Your task to perform on an android device: Open the stopwatch Image 0: 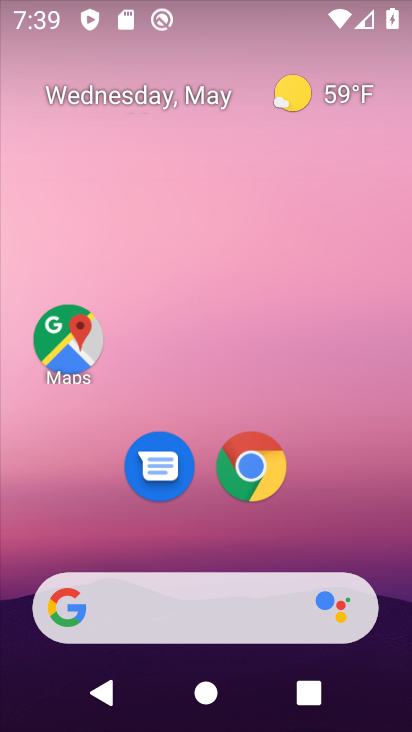
Step 0: drag from (312, 541) to (312, 226)
Your task to perform on an android device: Open the stopwatch Image 1: 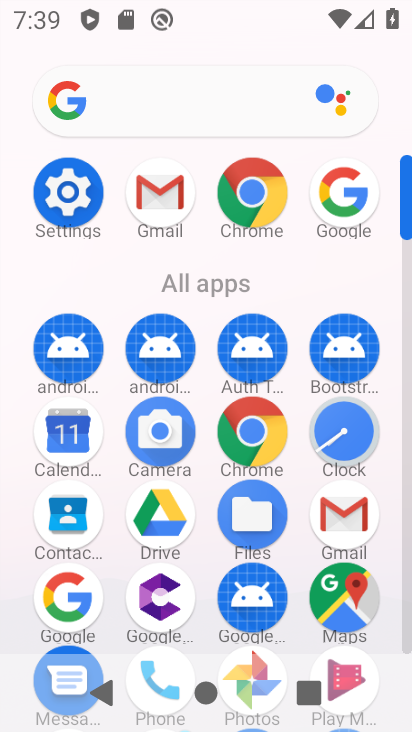
Step 1: click (319, 430)
Your task to perform on an android device: Open the stopwatch Image 2: 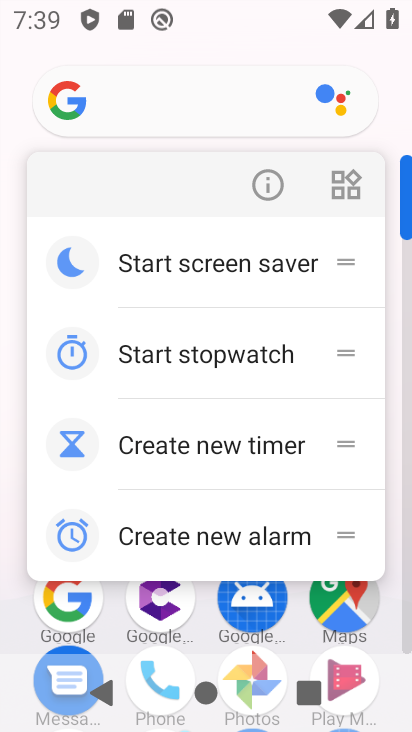
Step 2: press back button
Your task to perform on an android device: Open the stopwatch Image 3: 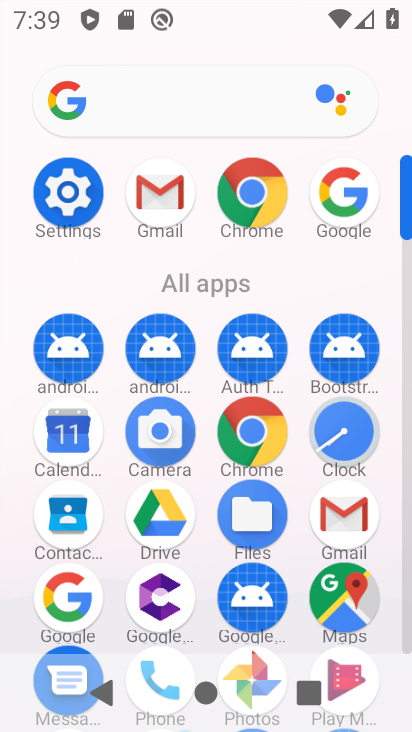
Step 3: click (340, 425)
Your task to perform on an android device: Open the stopwatch Image 4: 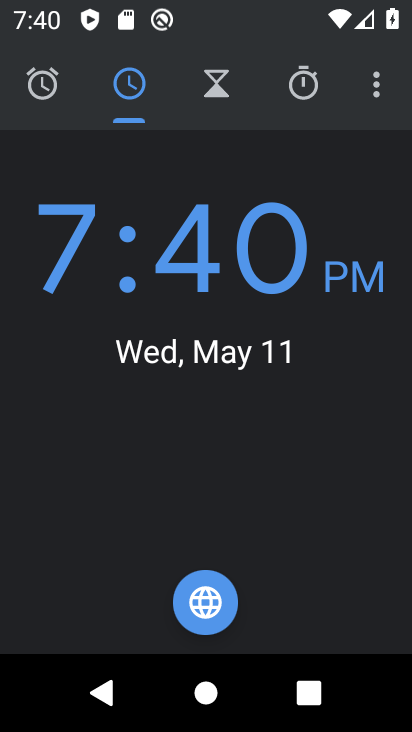
Step 4: click (308, 84)
Your task to perform on an android device: Open the stopwatch Image 5: 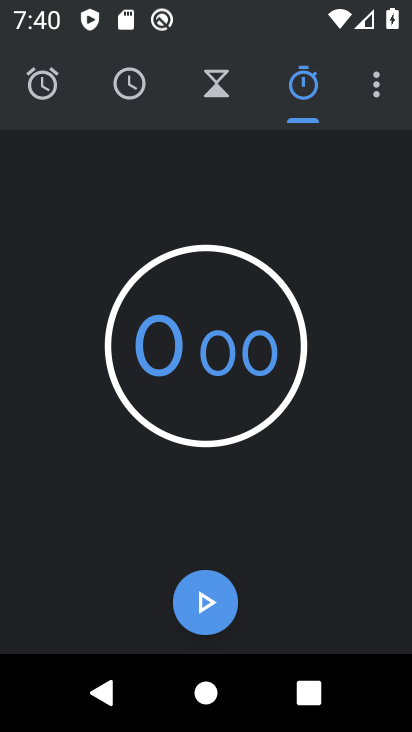
Step 5: task complete